Your task to perform on an android device: Go to Maps Image 0: 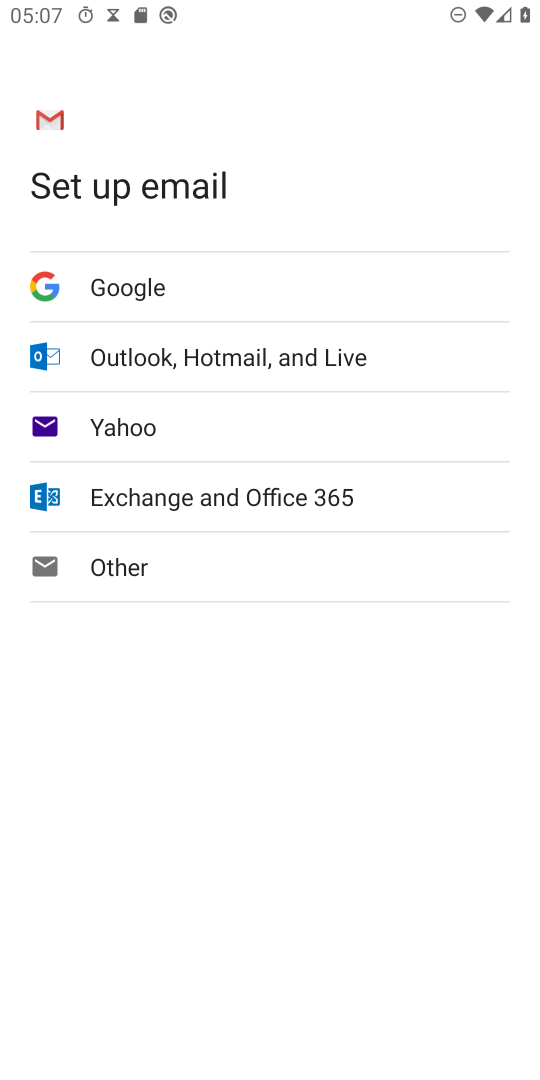
Step 0: press home button
Your task to perform on an android device: Go to Maps Image 1: 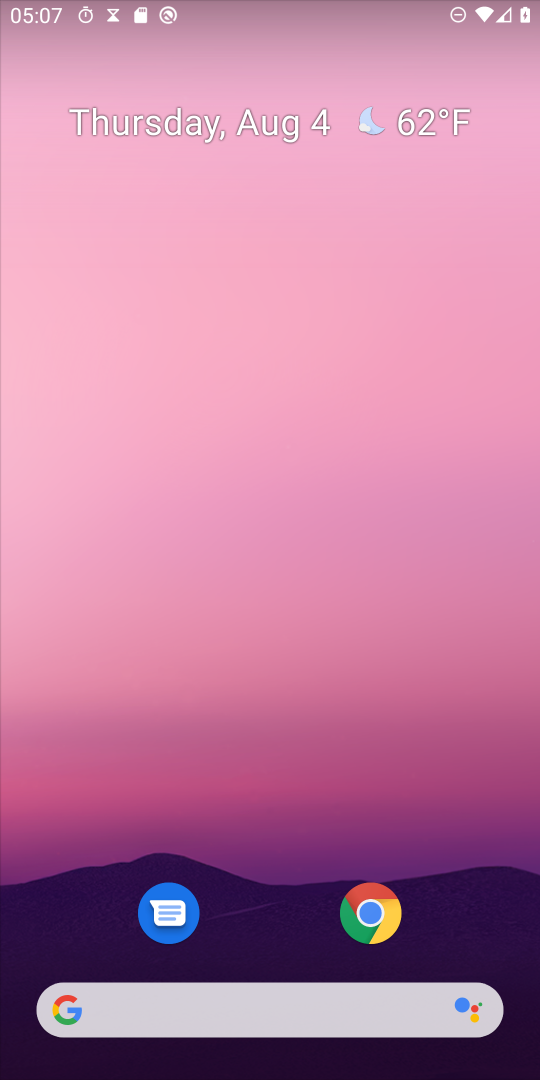
Step 1: drag from (222, 984) to (261, 88)
Your task to perform on an android device: Go to Maps Image 2: 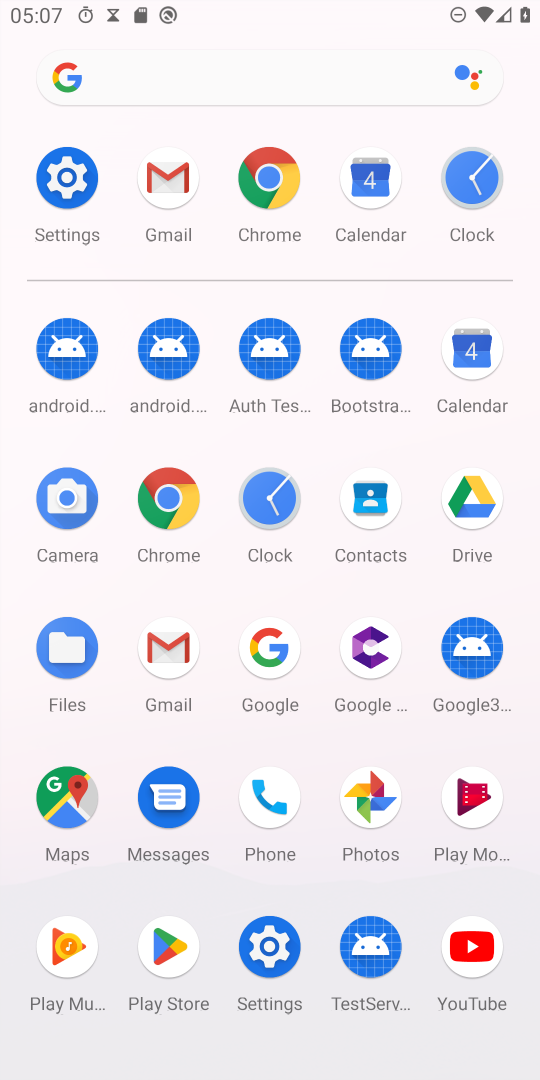
Step 2: click (67, 818)
Your task to perform on an android device: Go to Maps Image 3: 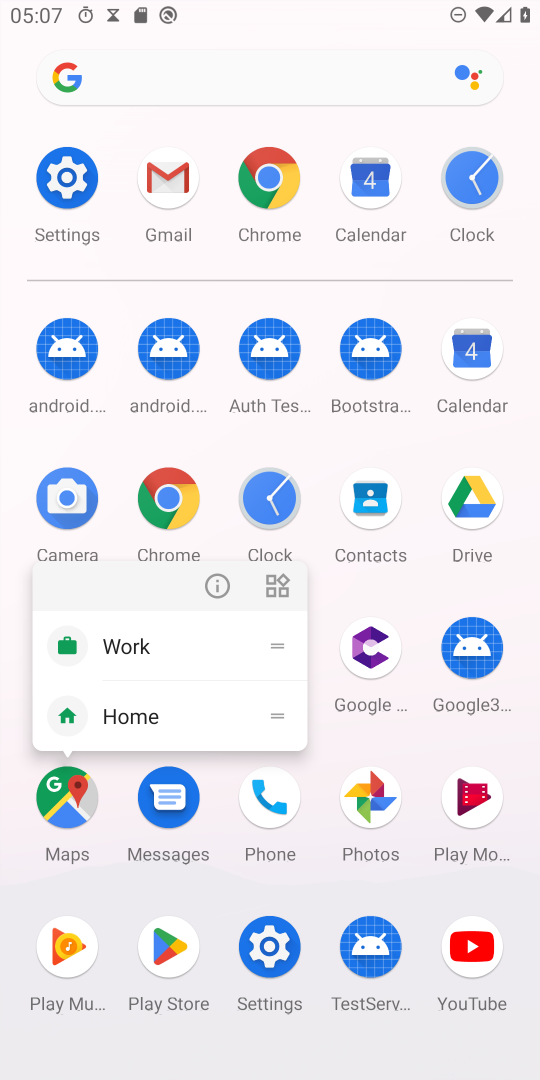
Step 3: click (55, 810)
Your task to perform on an android device: Go to Maps Image 4: 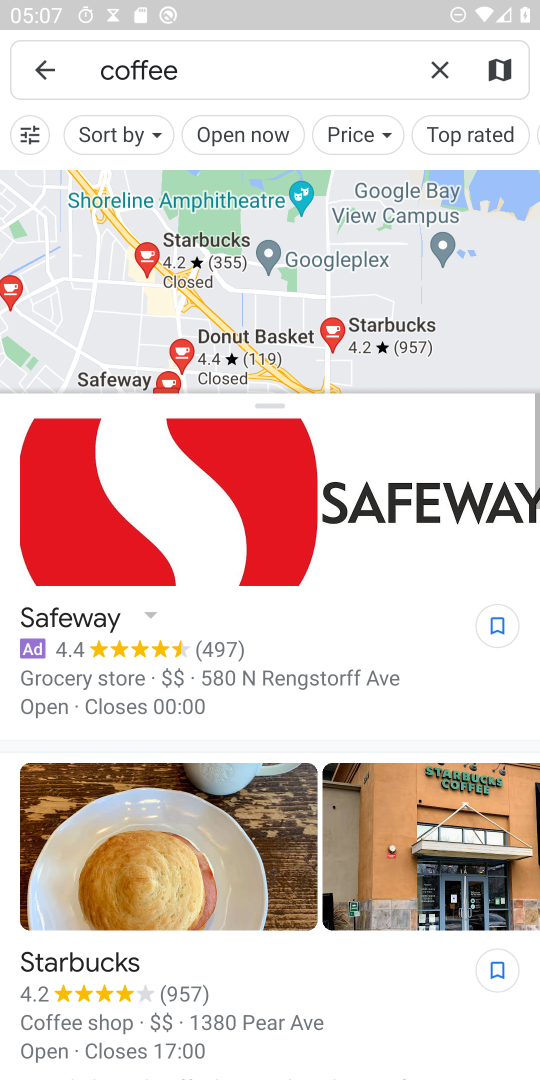
Step 4: task complete